Your task to perform on an android device: read, delete, or share a saved page in the chrome app Image 0: 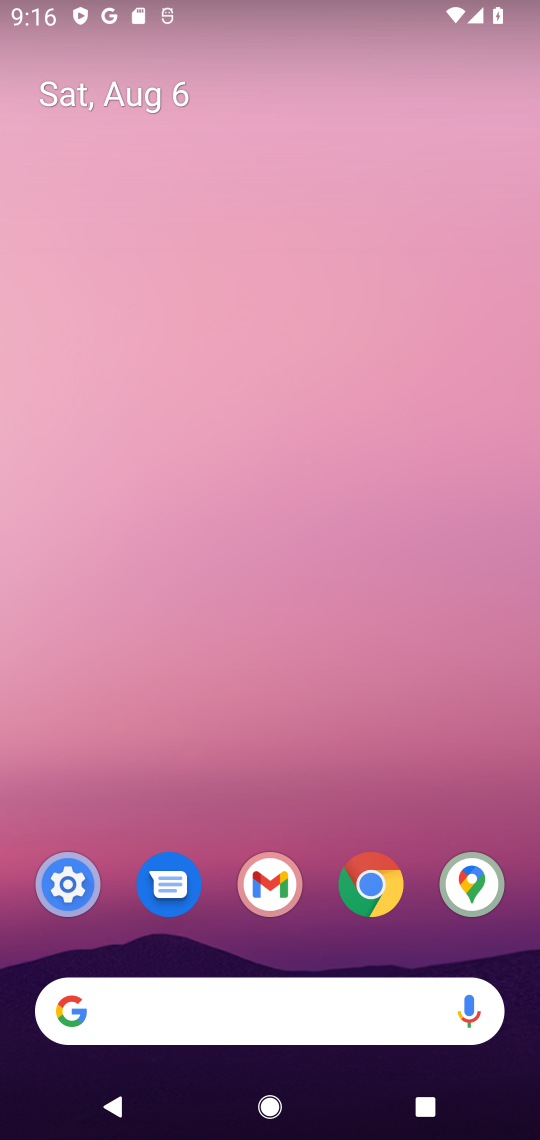
Step 0: click (372, 886)
Your task to perform on an android device: read, delete, or share a saved page in the chrome app Image 1: 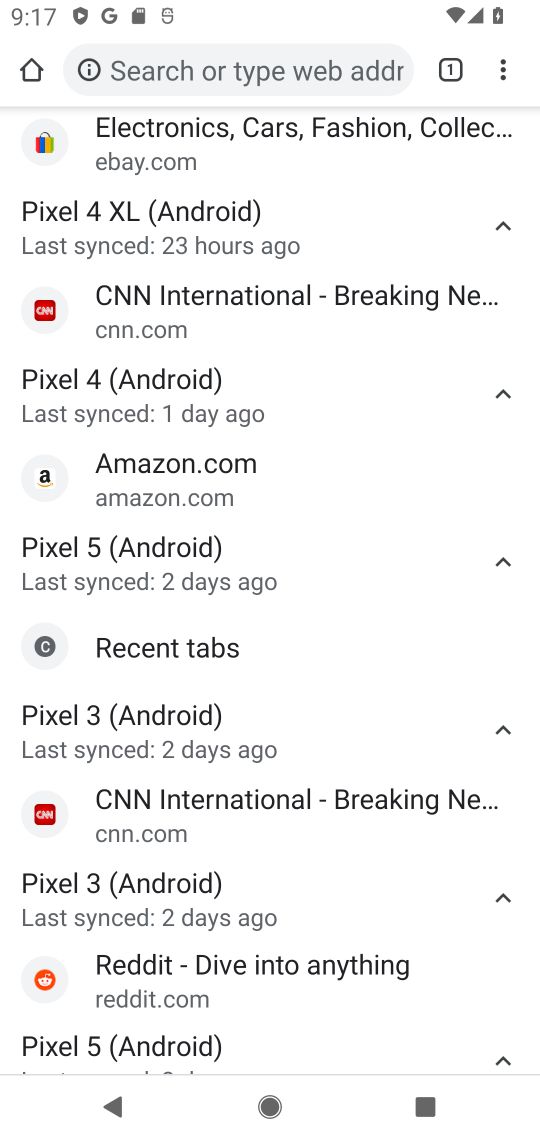
Step 1: click (497, 75)
Your task to perform on an android device: read, delete, or share a saved page in the chrome app Image 2: 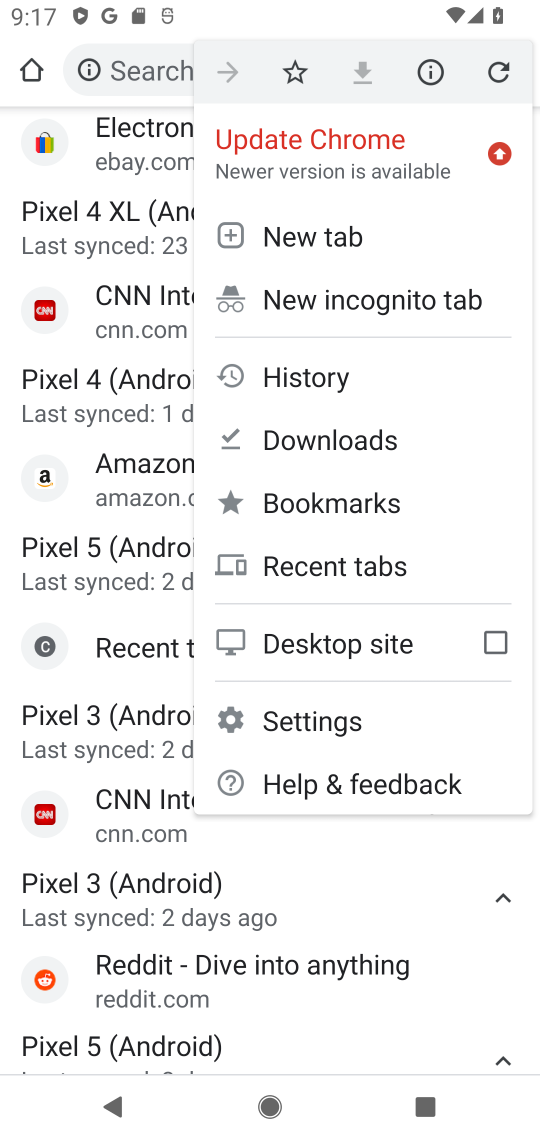
Step 2: click (313, 438)
Your task to perform on an android device: read, delete, or share a saved page in the chrome app Image 3: 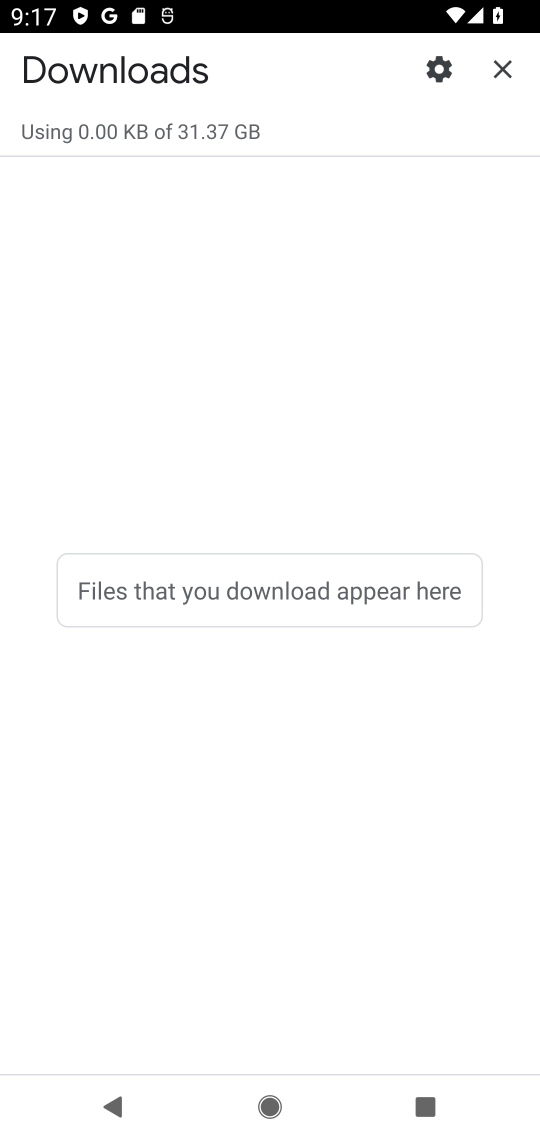
Step 3: click (169, 81)
Your task to perform on an android device: read, delete, or share a saved page in the chrome app Image 4: 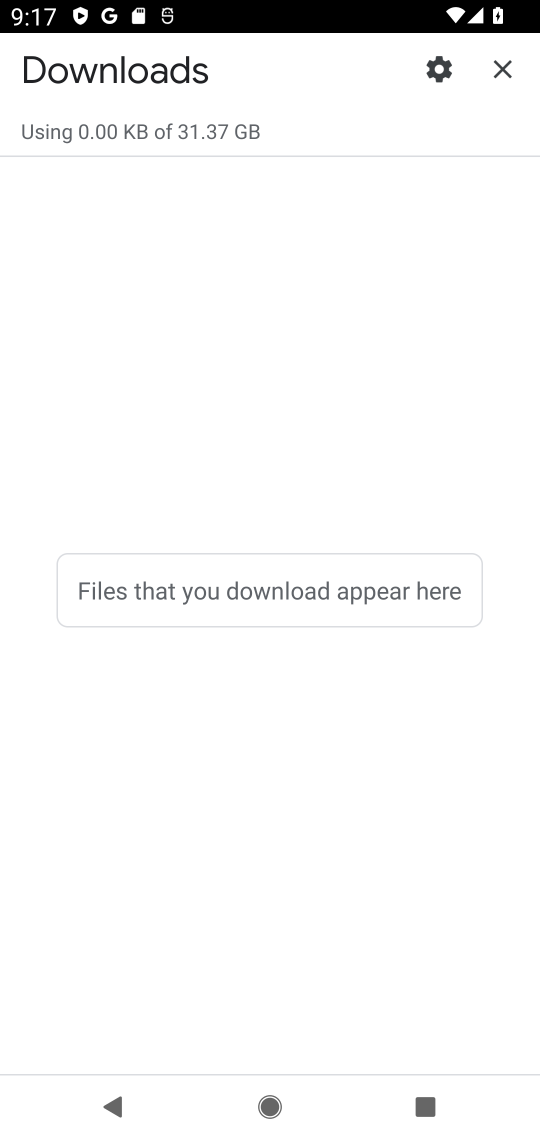
Step 4: click (436, 64)
Your task to perform on an android device: read, delete, or share a saved page in the chrome app Image 5: 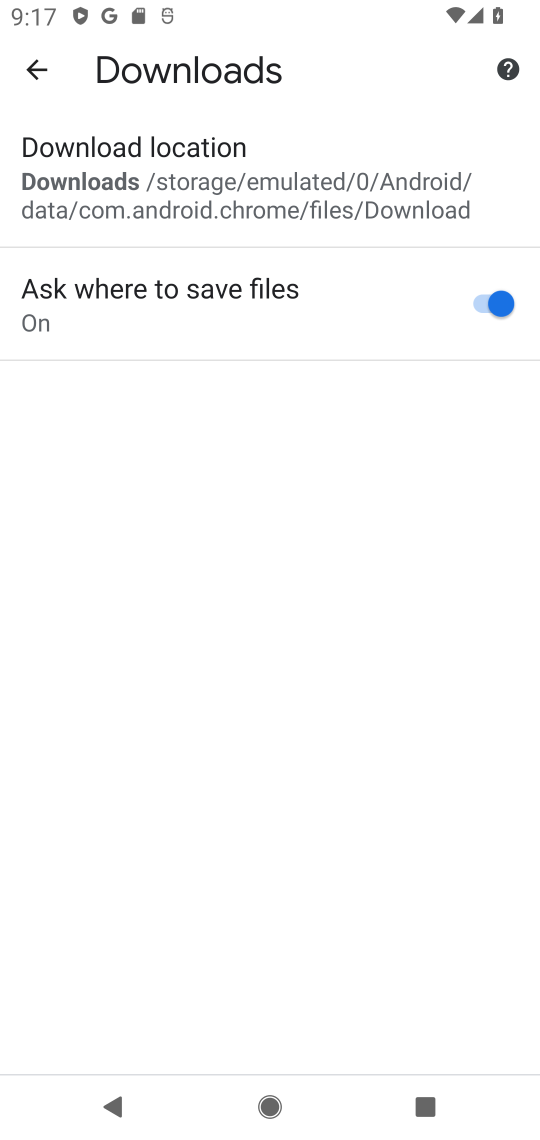
Step 5: task complete